Your task to perform on an android device: Open Maps and search for coffee Image 0: 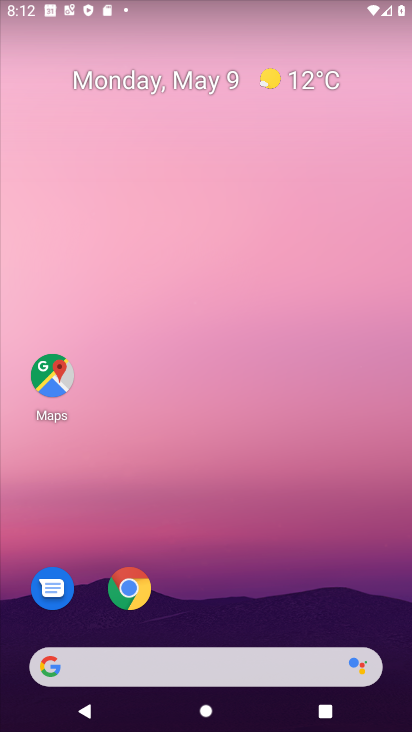
Step 0: drag from (192, 675) to (306, 139)
Your task to perform on an android device: Open Maps and search for coffee Image 1: 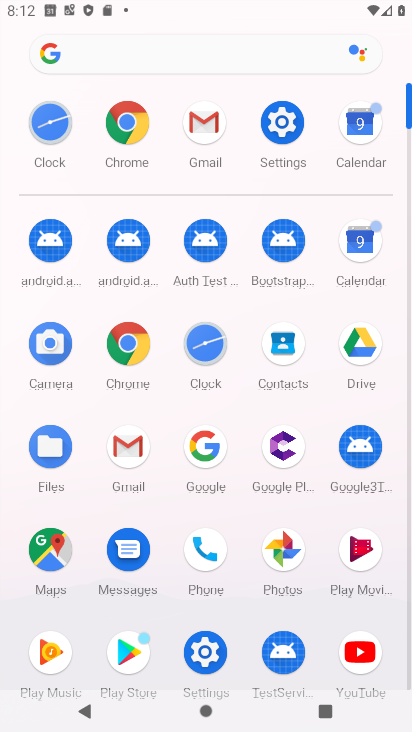
Step 1: click (50, 561)
Your task to perform on an android device: Open Maps and search for coffee Image 2: 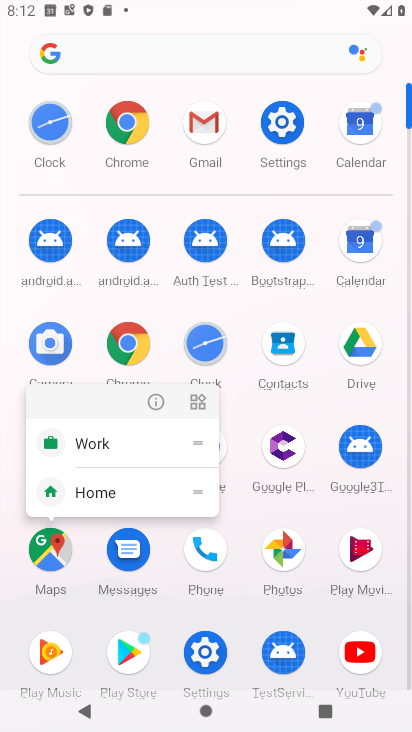
Step 2: click (53, 559)
Your task to perform on an android device: Open Maps and search for coffee Image 3: 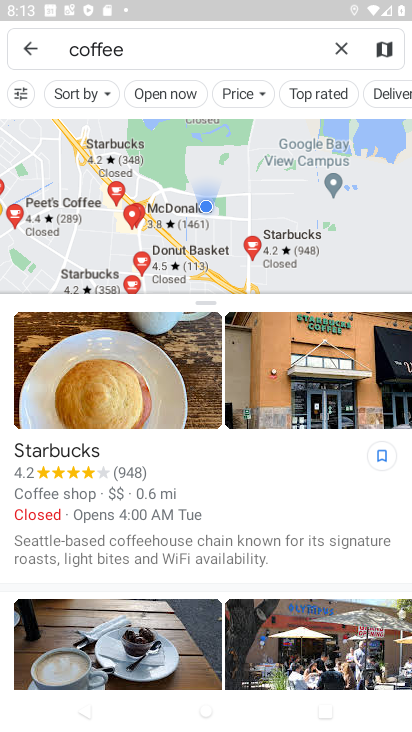
Step 3: task complete